Your task to perform on an android device: Is it going to rain today? Image 0: 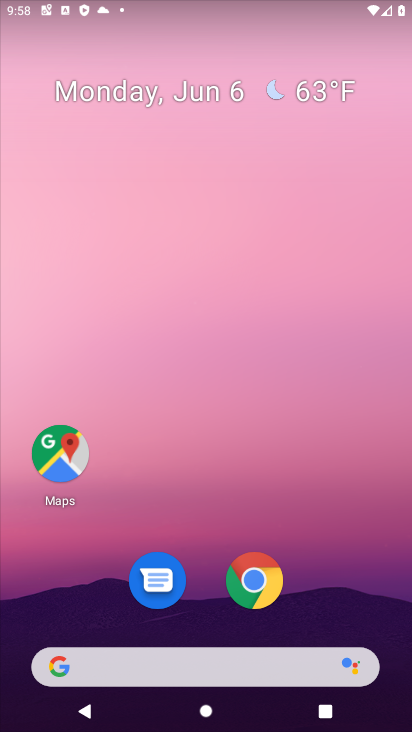
Step 0: drag from (354, 571) to (2, 227)
Your task to perform on an android device: Is it going to rain today? Image 1: 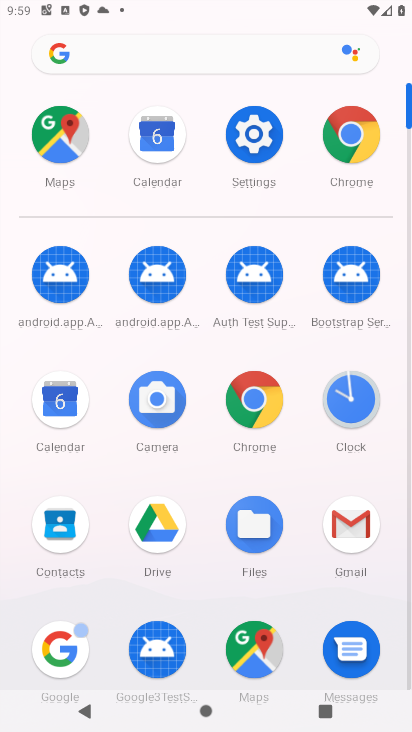
Step 1: press home button
Your task to perform on an android device: Is it going to rain today? Image 2: 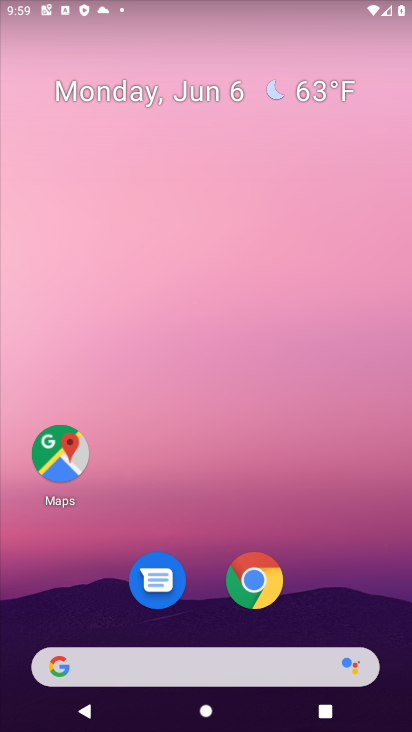
Step 2: click (326, 95)
Your task to perform on an android device: Is it going to rain today? Image 3: 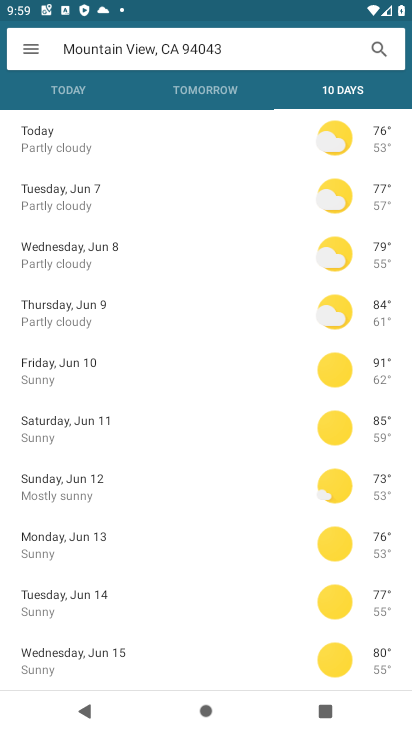
Step 3: task complete